Your task to perform on an android device: Google the capital of Paraguay Image 0: 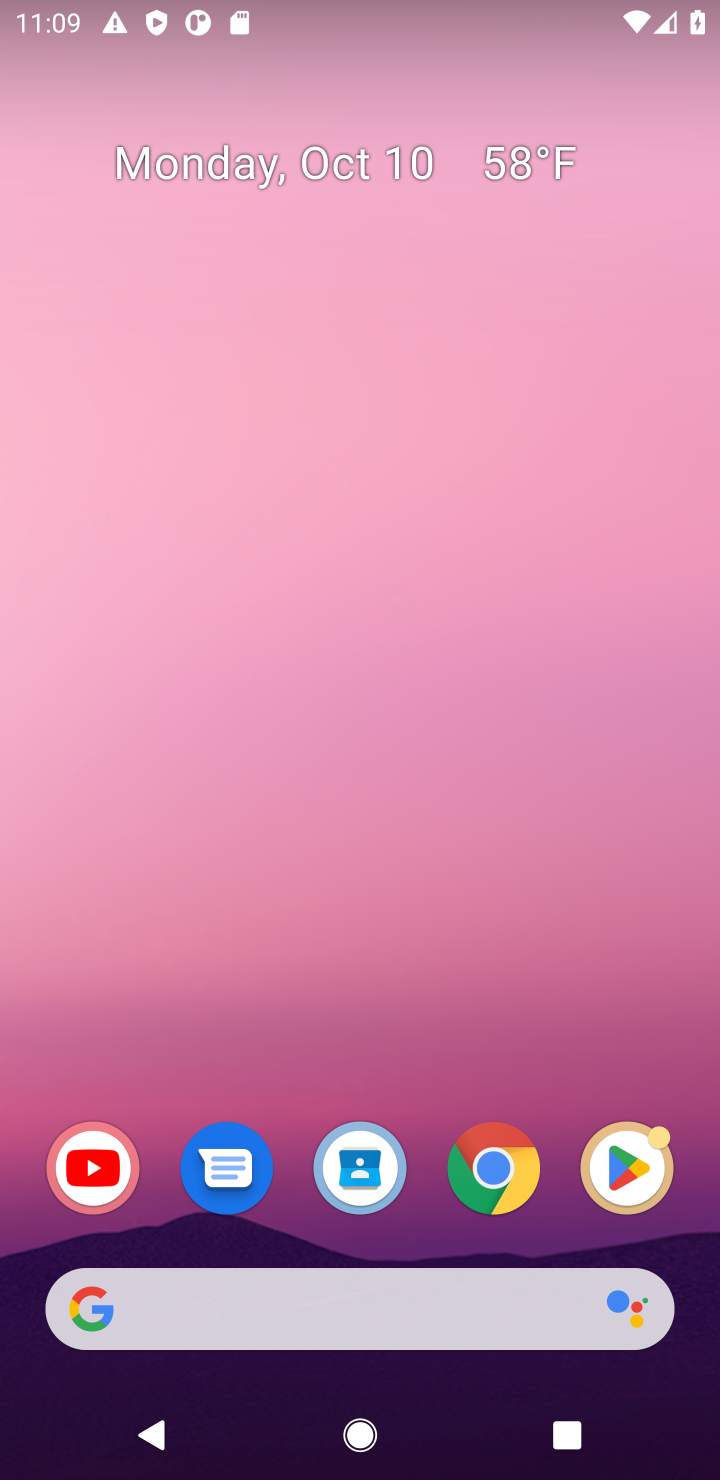
Step 0: click (319, 1286)
Your task to perform on an android device: Google the capital of Paraguay Image 1: 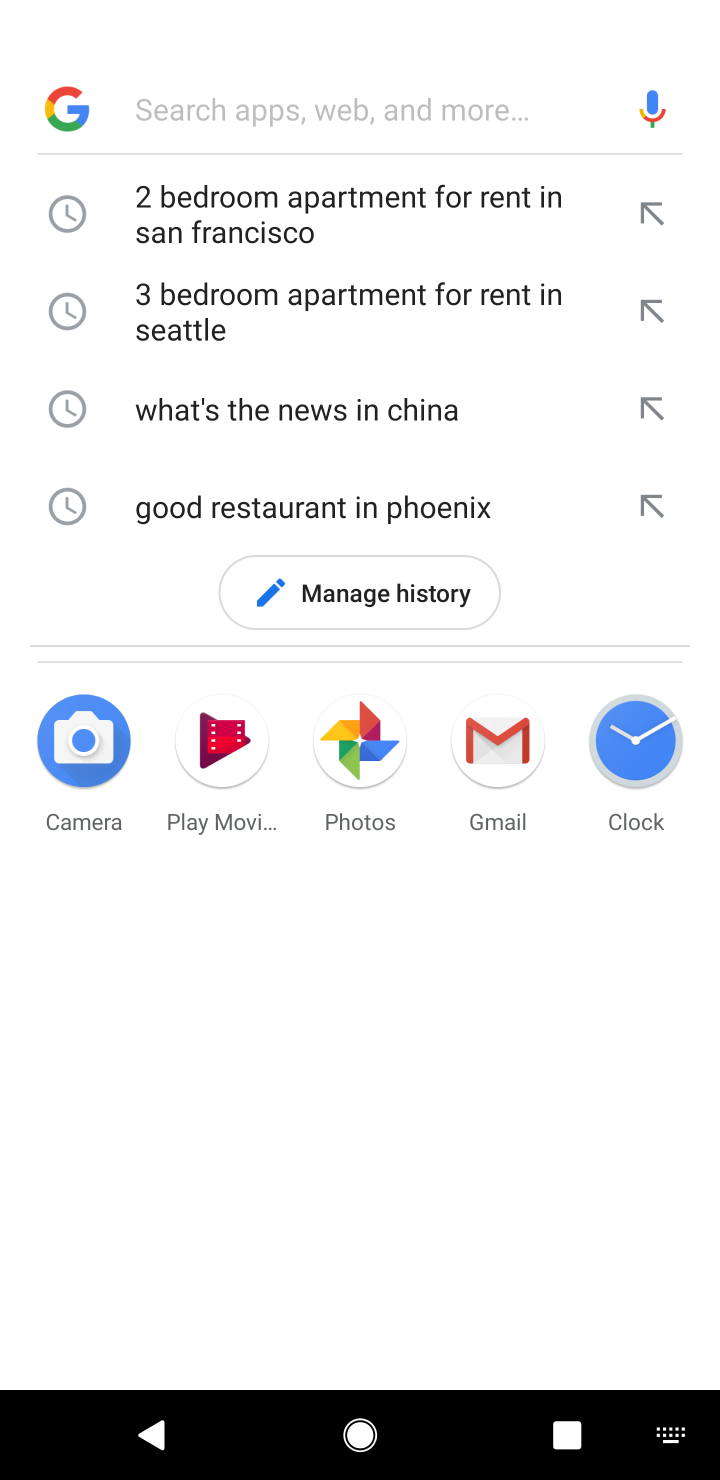
Step 1: type "capital of Paraguay"
Your task to perform on an android device: Google the capital of Paraguay Image 2: 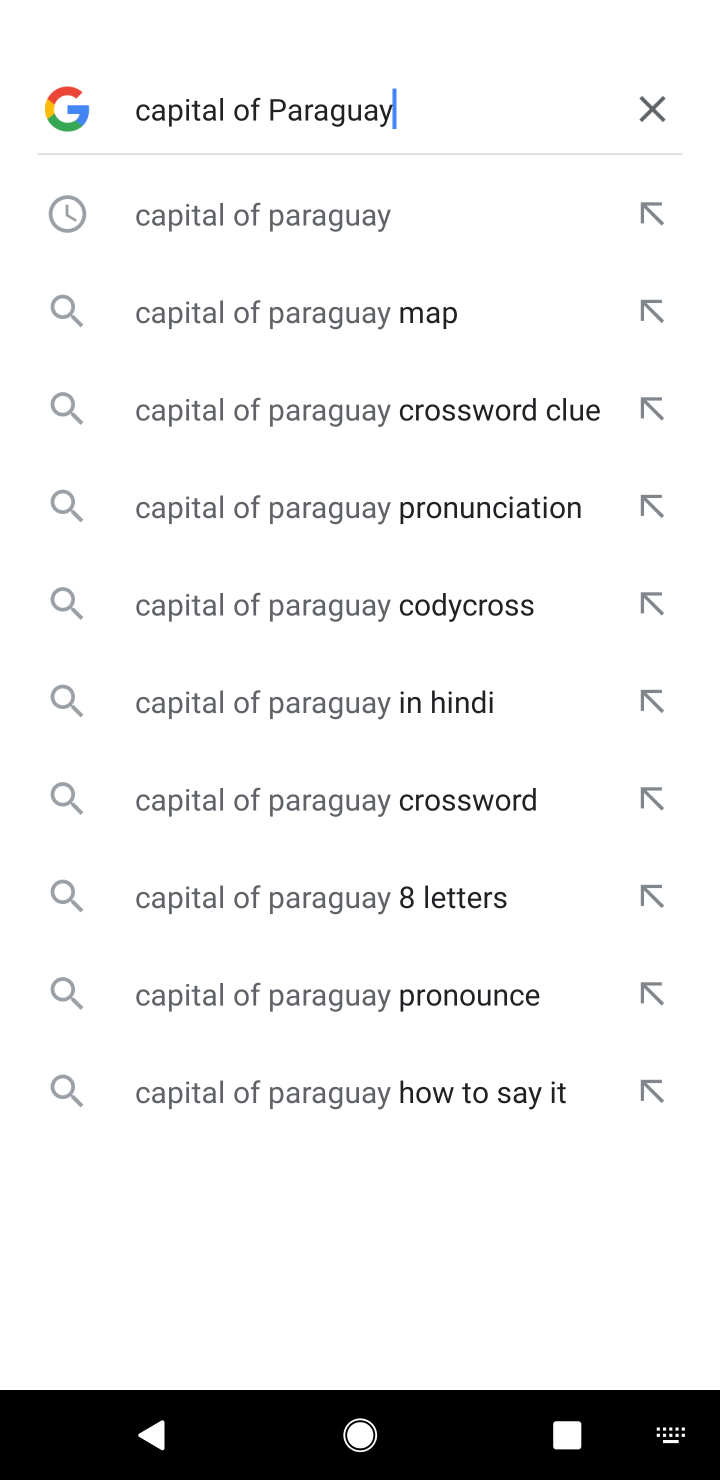
Step 2: click (314, 205)
Your task to perform on an android device: Google the capital of Paraguay Image 3: 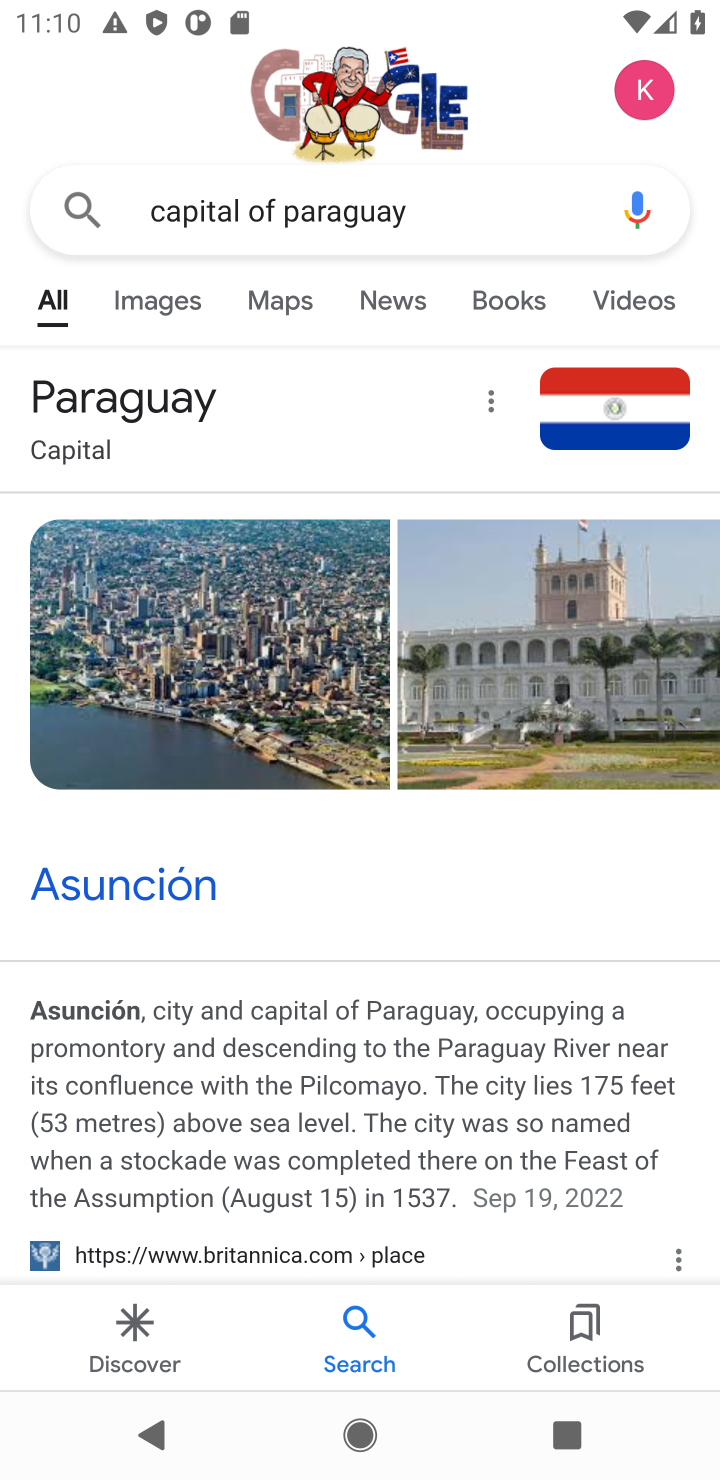
Step 3: task complete